Your task to perform on an android device: Do I have any events today? Image 0: 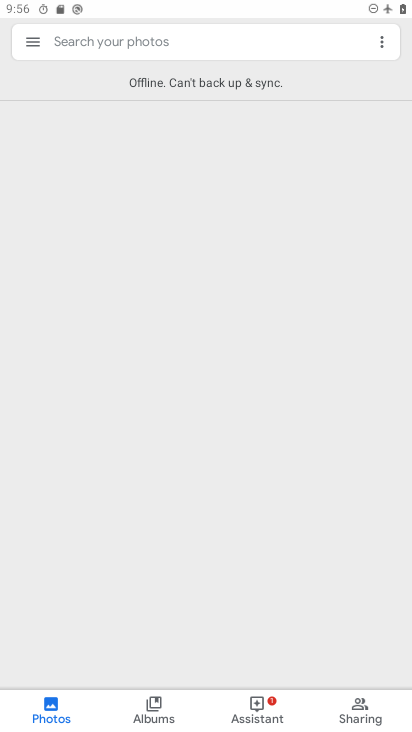
Step 0: press home button
Your task to perform on an android device: Do I have any events today? Image 1: 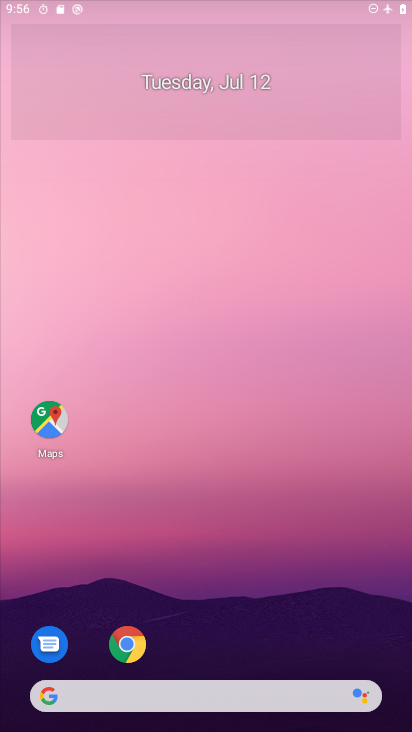
Step 1: drag from (224, 619) to (226, 191)
Your task to perform on an android device: Do I have any events today? Image 2: 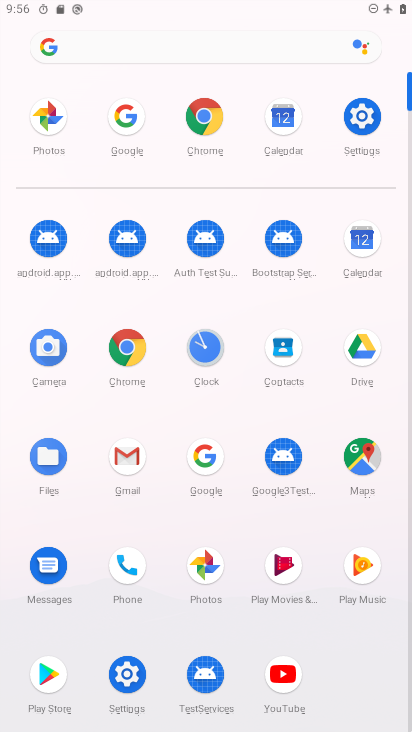
Step 2: click (351, 252)
Your task to perform on an android device: Do I have any events today? Image 3: 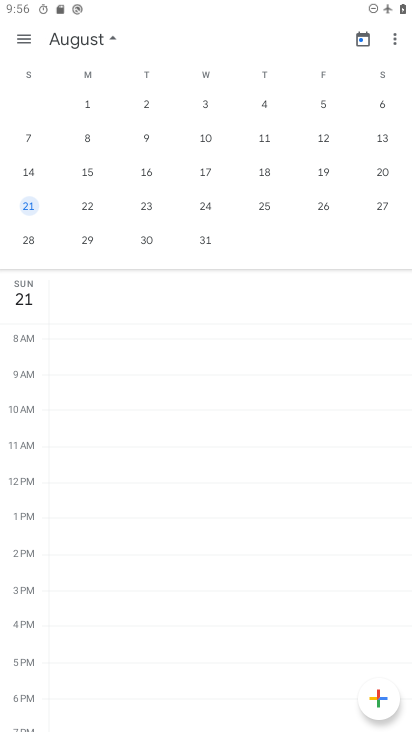
Step 3: task complete